Your task to perform on an android device: create a new album in the google photos Image 0: 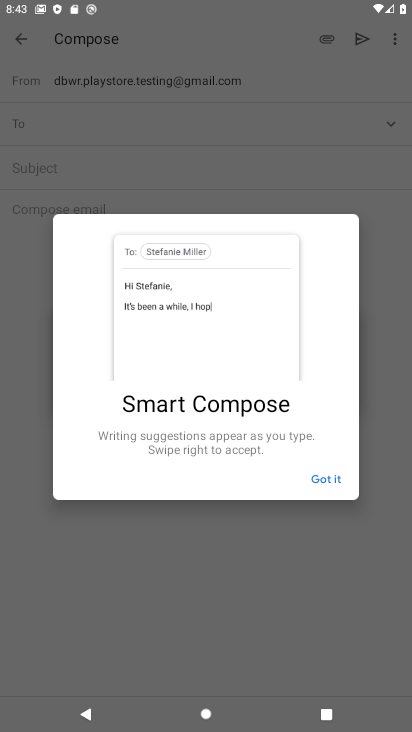
Step 0: press back button
Your task to perform on an android device: create a new album in the google photos Image 1: 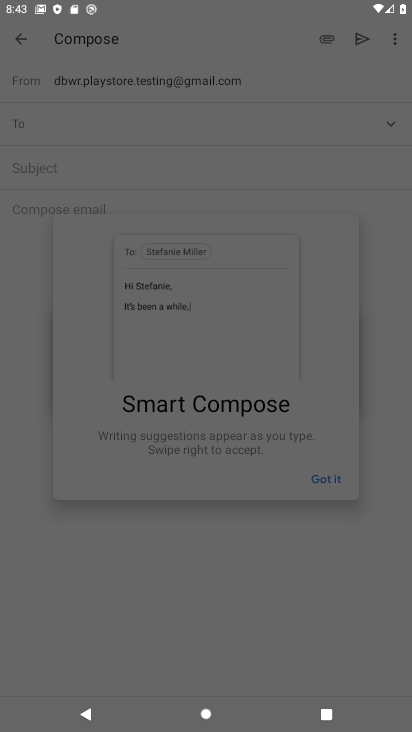
Step 1: press back button
Your task to perform on an android device: create a new album in the google photos Image 2: 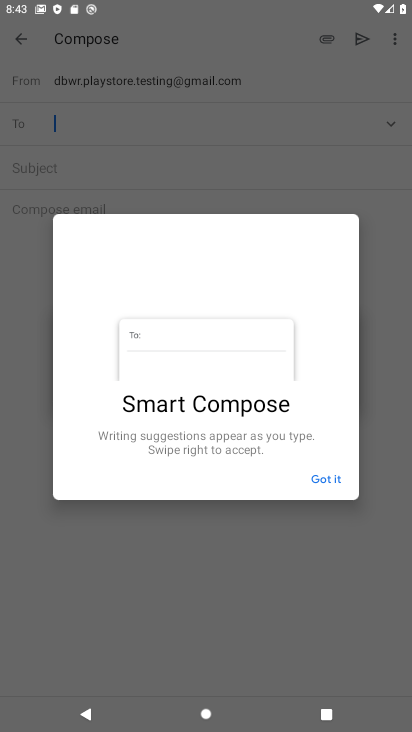
Step 2: press back button
Your task to perform on an android device: create a new album in the google photos Image 3: 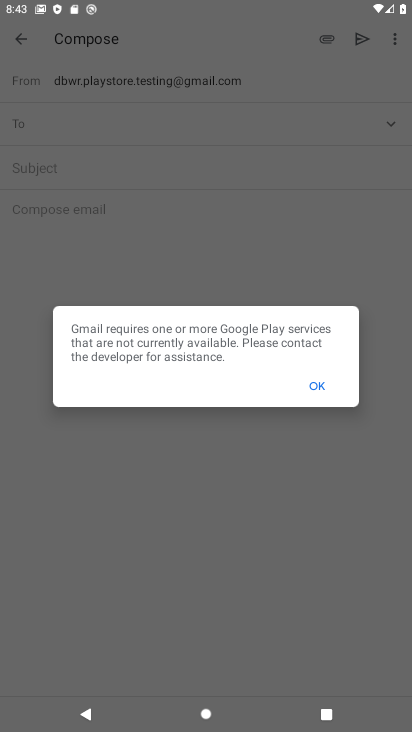
Step 3: press back button
Your task to perform on an android device: create a new album in the google photos Image 4: 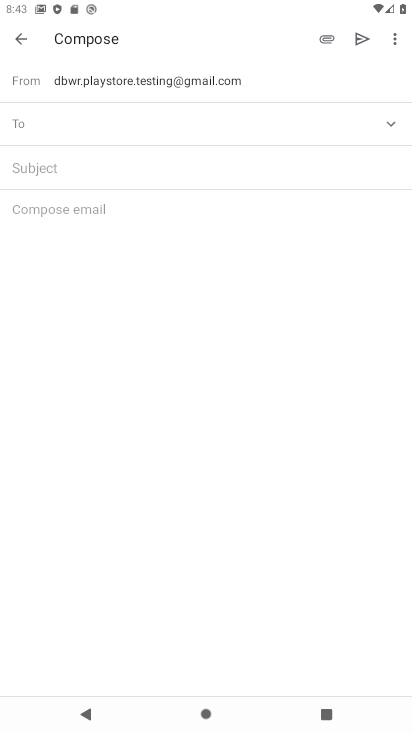
Step 4: press back button
Your task to perform on an android device: create a new album in the google photos Image 5: 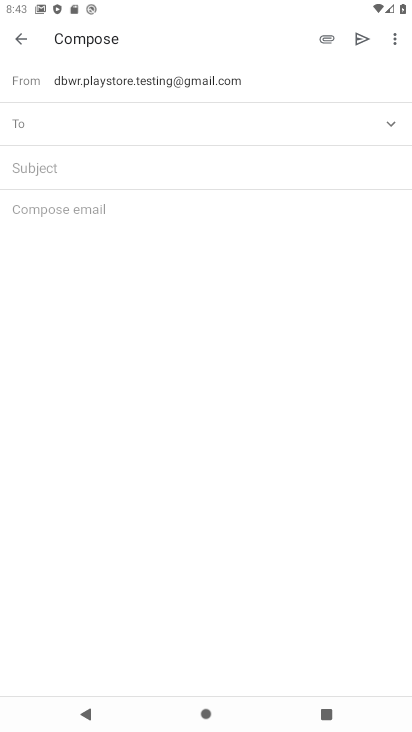
Step 5: press back button
Your task to perform on an android device: create a new album in the google photos Image 6: 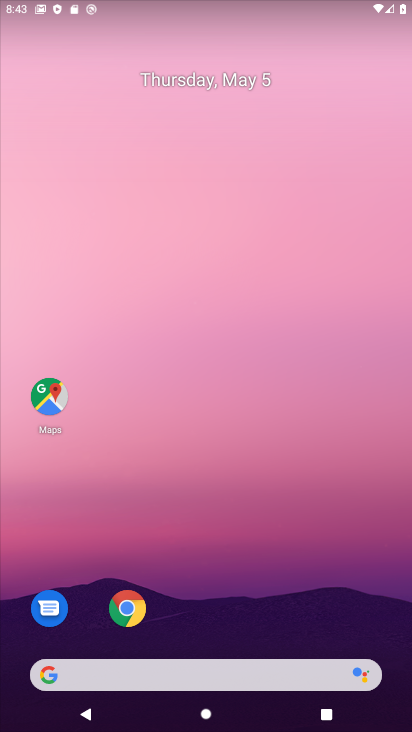
Step 6: drag from (225, 597) to (226, 41)
Your task to perform on an android device: create a new album in the google photos Image 7: 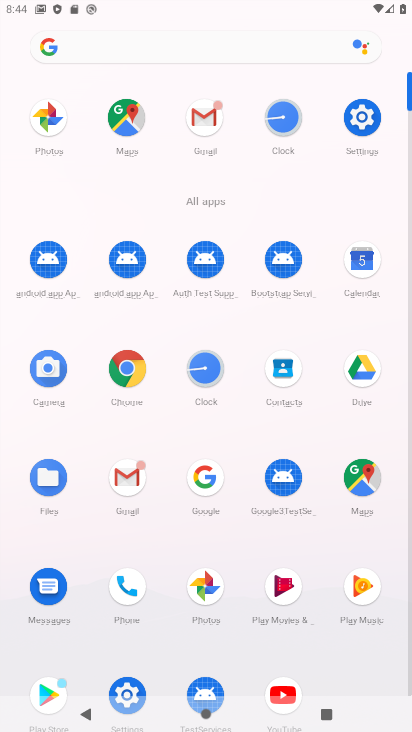
Step 7: drag from (9, 618) to (11, 283)
Your task to perform on an android device: create a new album in the google photos Image 8: 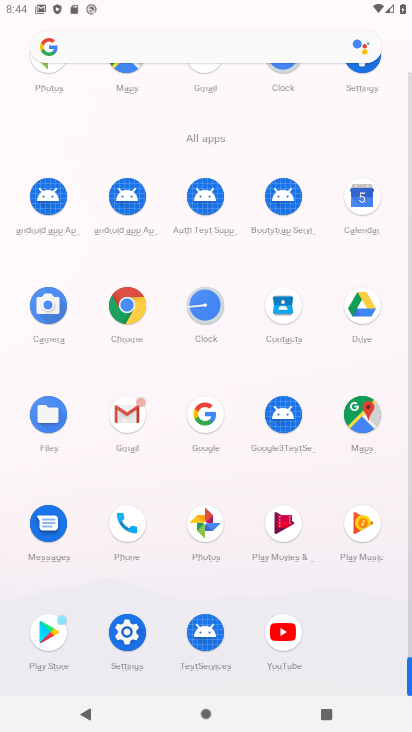
Step 8: click (207, 522)
Your task to perform on an android device: create a new album in the google photos Image 9: 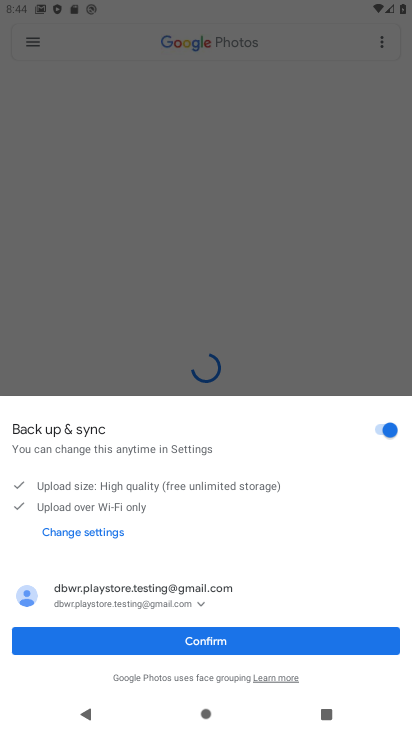
Step 9: click (203, 640)
Your task to perform on an android device: create a new album in the google photos Image 10: 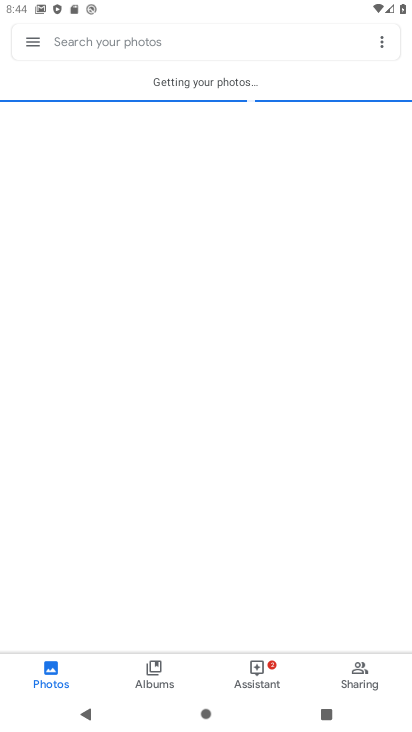
Step 10: click (152, 675)
Your task to perform on an android device: create a new album in the google photos Image 11: 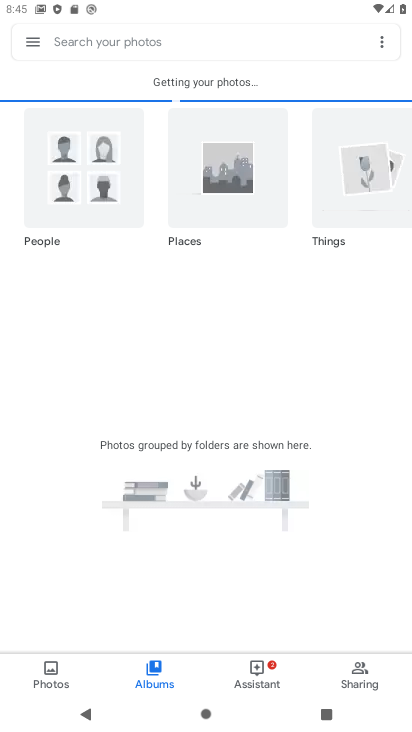
Step 11: click (266, 686)
Your task to perform on an android device: create a new album in the google photos Image 12: 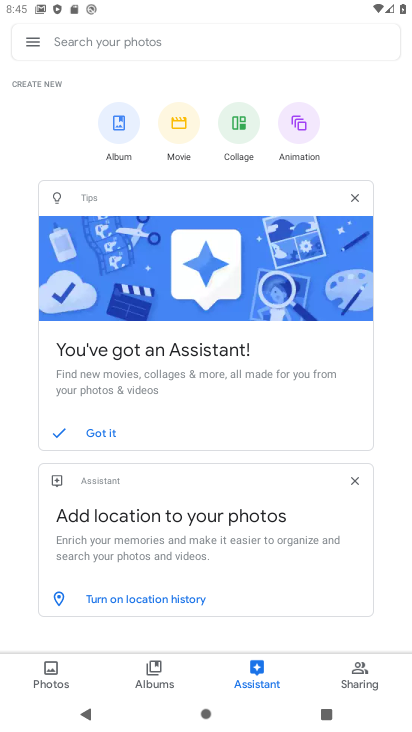
Step 12: click (122, 117)
Your task to perform on an android device: create a new album in the google photos Image 13: 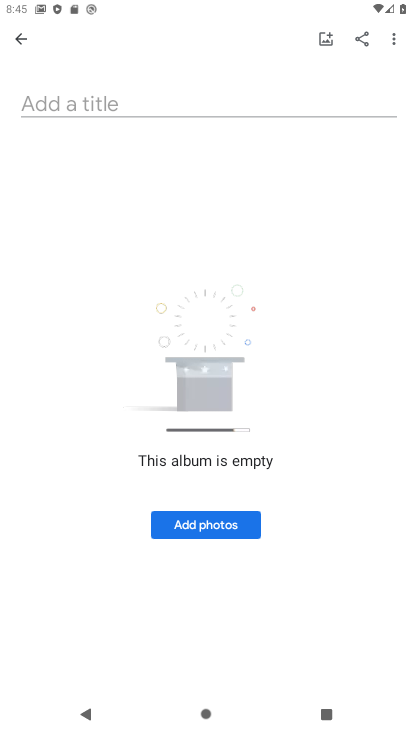
Step 13: click (111, 85)
Your task to perform on an android device: create a new album in the google photos Image 14: 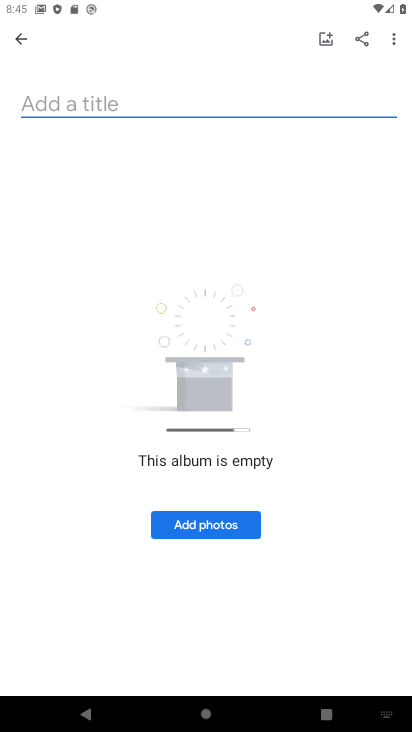
Step 14: type "sdre"
Your task to perform on an android device: create a new album in the google photos Image 15: 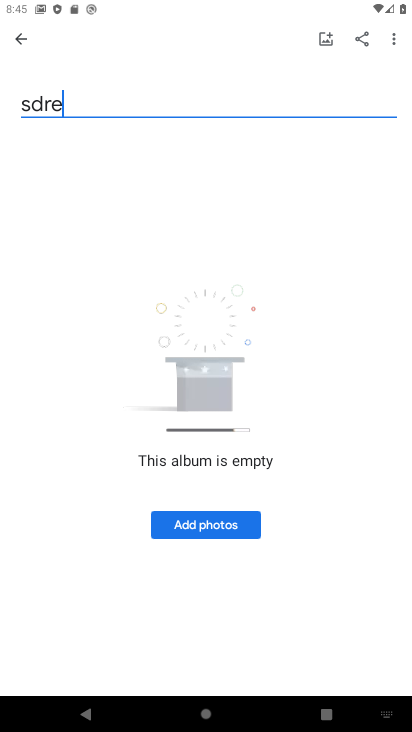
Step 15: type ""
Your task to perform on an android device: create a new album in the google photos Image 16: 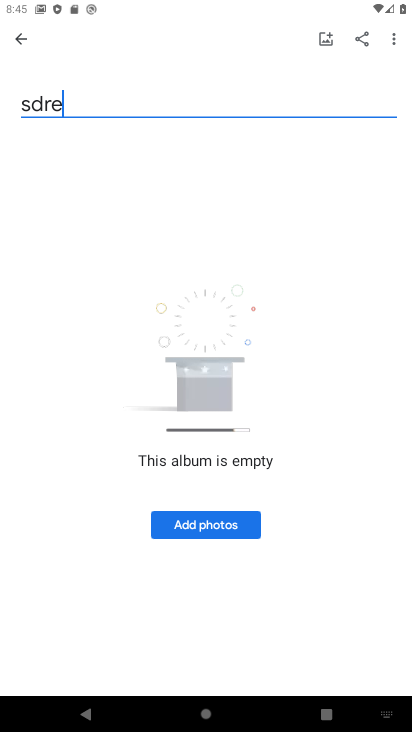
Step 16: click (212, 529)
Your task to perform on an android device: create a new album in the google photos Image 17: 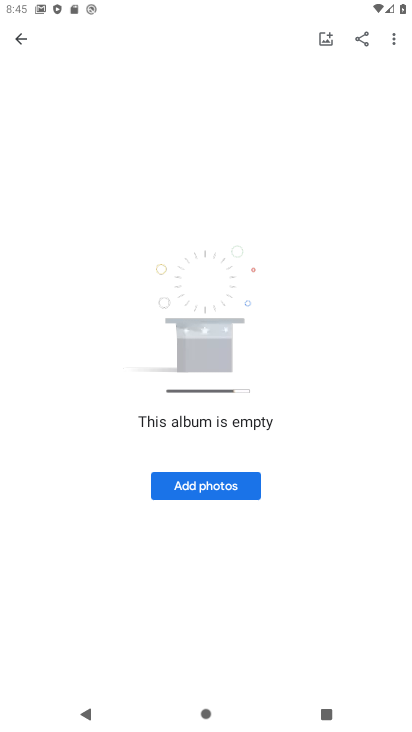
Step 17: click (221, 482)
Your task to perform on an android device: create a new album in the google photos Image 18: 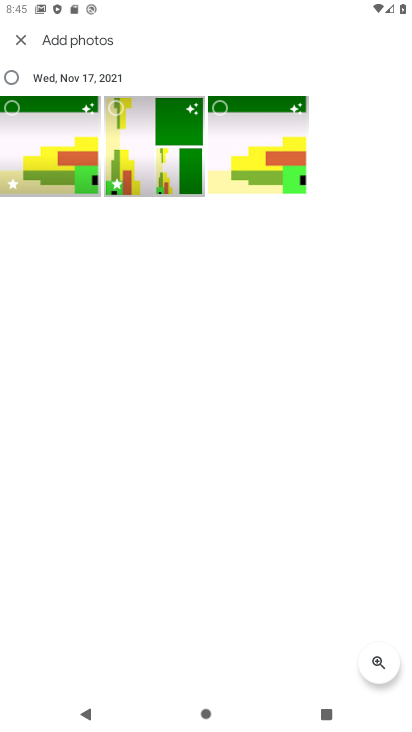
Step 18: click (136, 143)
Your task to perform on an android device: create a new album in the google photos Image 19: 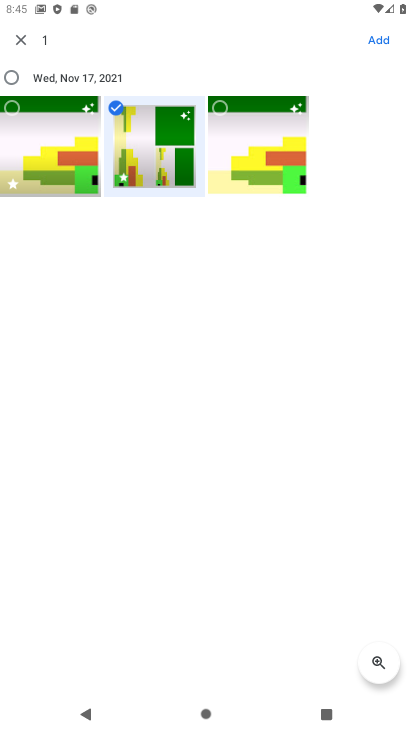
Step 19: click (378, 34)
Your task to perform on an android device: create a new album in the google photos Image 20: 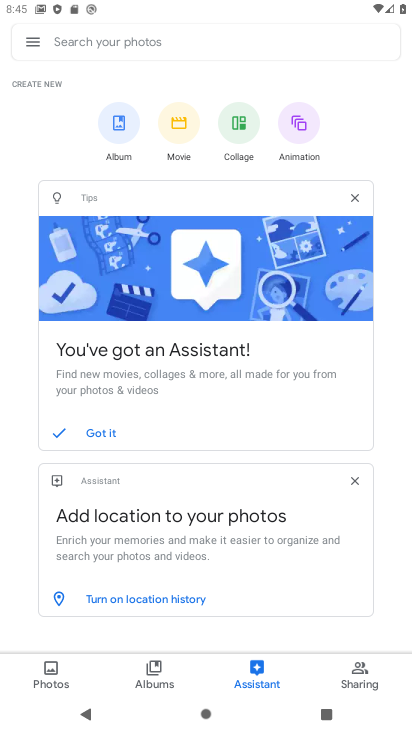
Step 20: task complete